Your task to perform on an android device: What's the weather? Image 0: 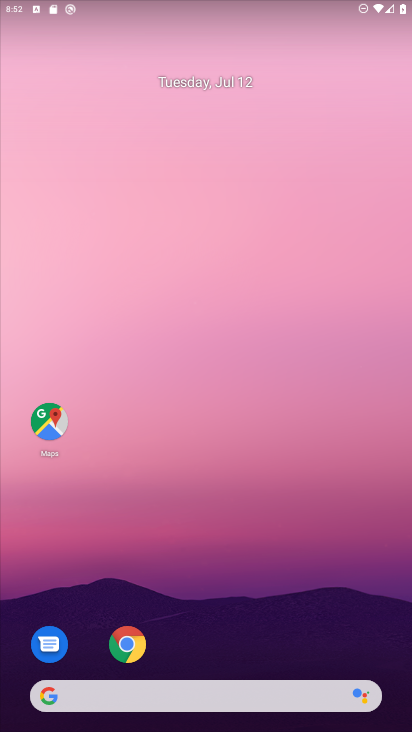
Step 0: drag from (15, 237) to (337, 242)
Your task to perform on an android device: What's the weather? Image 1: 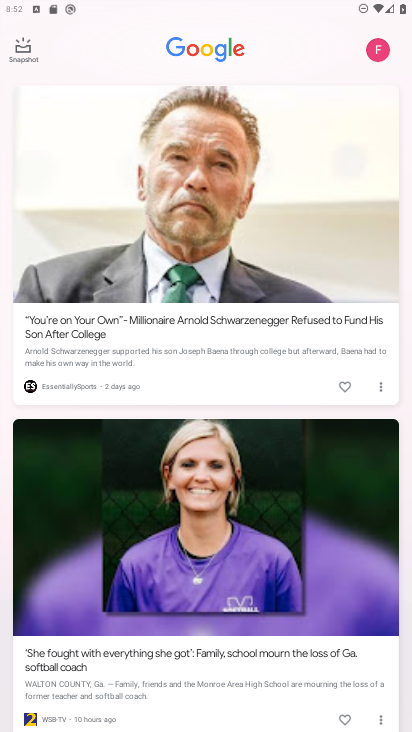
Step 1: drag from (215, 146) to (261, 491)
Your task to perform on an android device: What's the weather? Image 2: 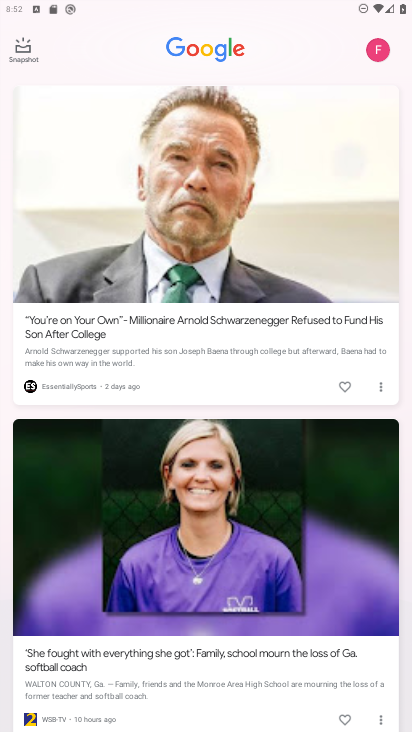
Step 2: drag from (229, 181) to (254, 477)
Your task to perform on an android device: What's the weather? Image 3: 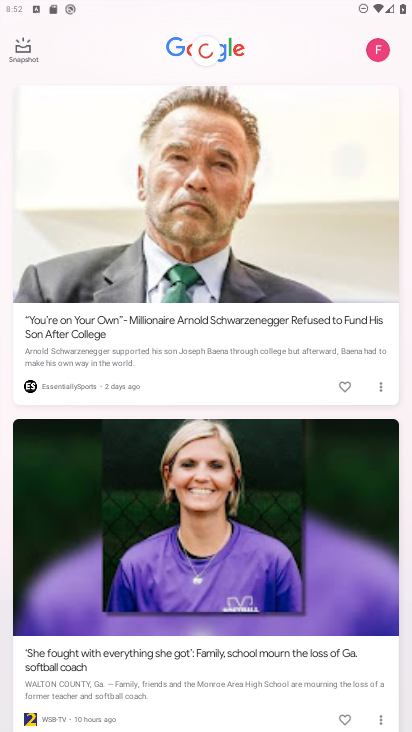
Step 3: drag from (394, 401) to (17, 399)
Your task to perform on an android device: What's the weather? Image 4: 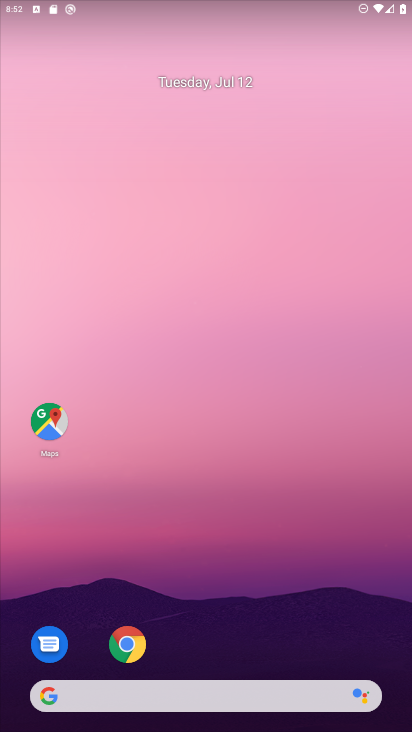
Step 4: click (157, 689)
Your task to perform on an android device: What's the weather? Image 5: 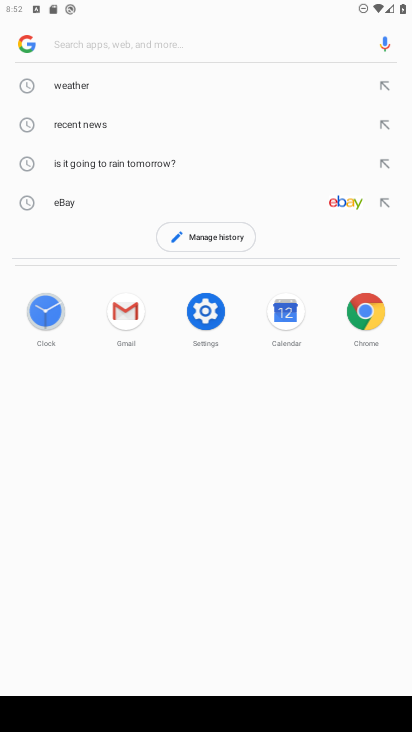
Step 5: click (67, 87)
Your task to perform on an android device: What's the weather? Image 6: 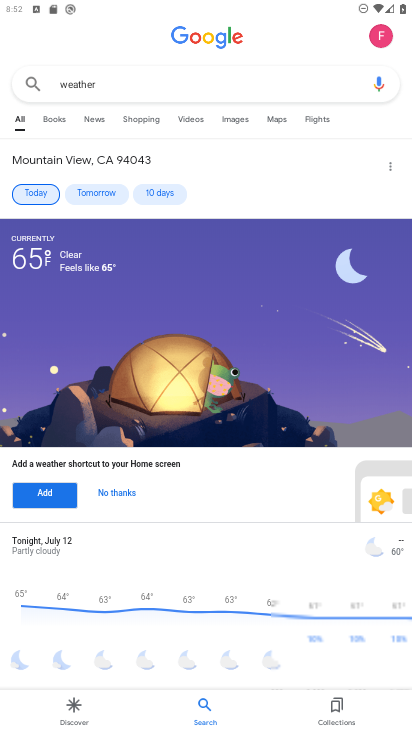
Step 6: task complete